Your task to perform on an android device: Go to notification settings Image 0: 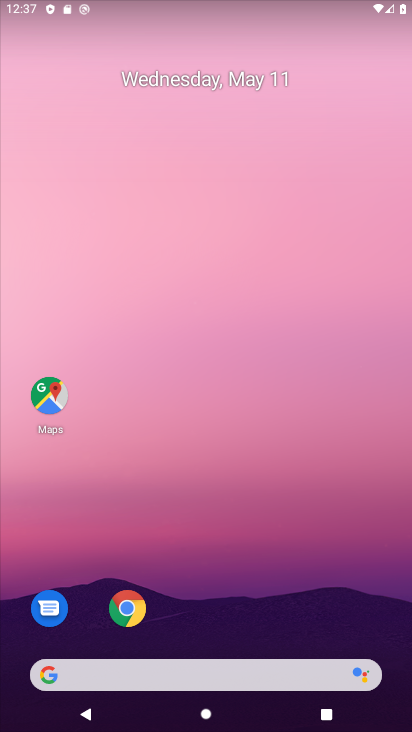
Step 0: drag from (235, 478) to (208, 147)
Your task to perform on an android device: Go to notification settings Image 1: 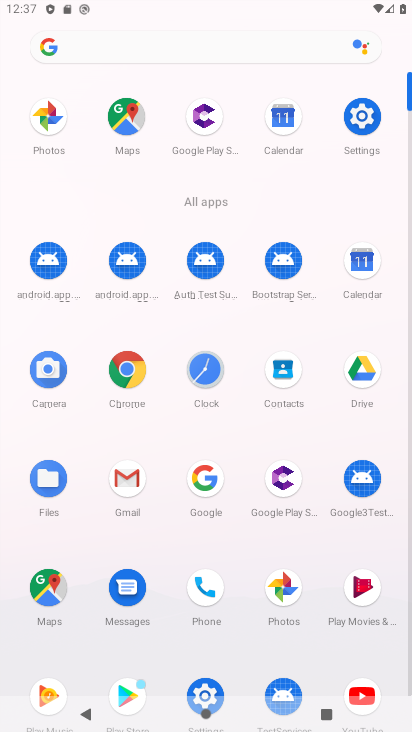
Step 1: click (347, 111)
Your task to perform on an android device: Go to notification settings Image 2: 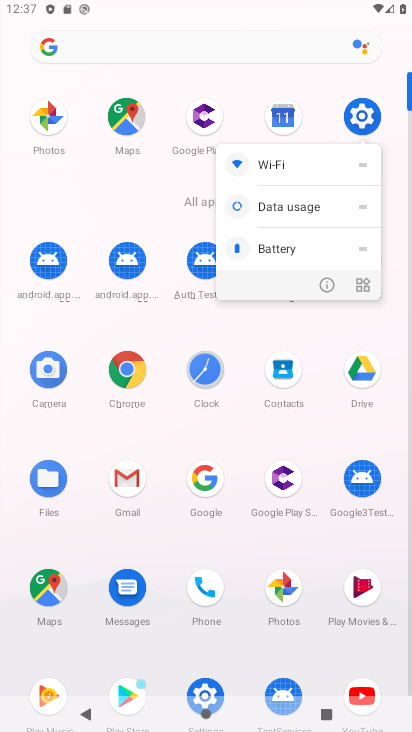
Step 2: click (358, 118)
Your task to perform on an android device: Go to notification settings Image 3: 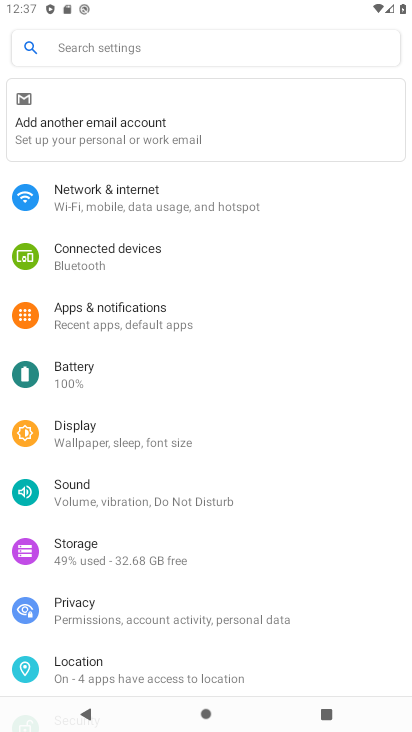
Step 3: click (177, 312)
Your task to perform on an android device: Go to notification settings Image 4: 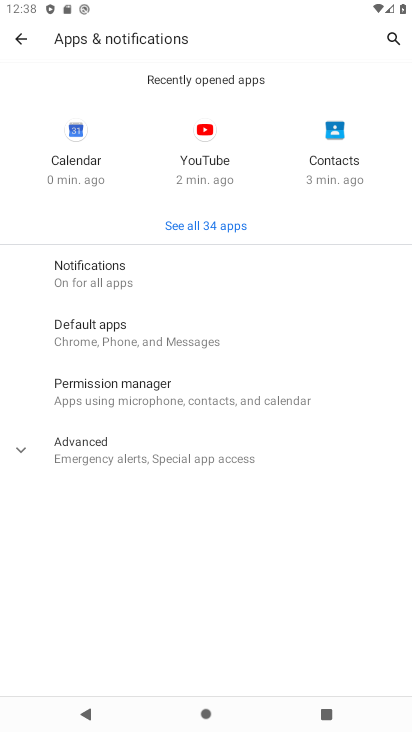
Step 4: task complete